Your task to perform on an android device: turn on bluetooth scan Image 0: 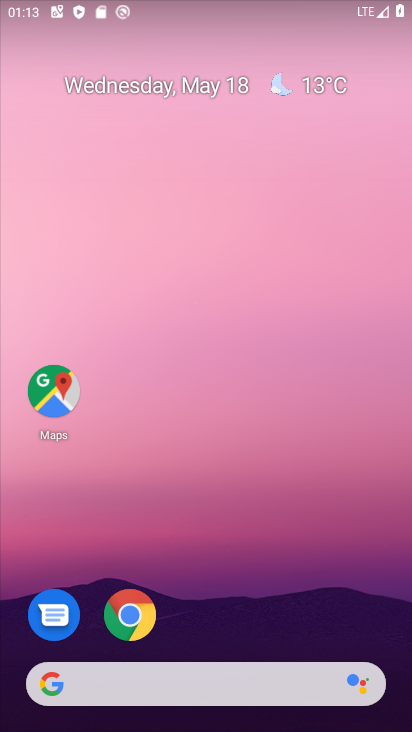
Step 0: press home button
Your task to perform on an android device: turn on bluetooth scan Image 1: 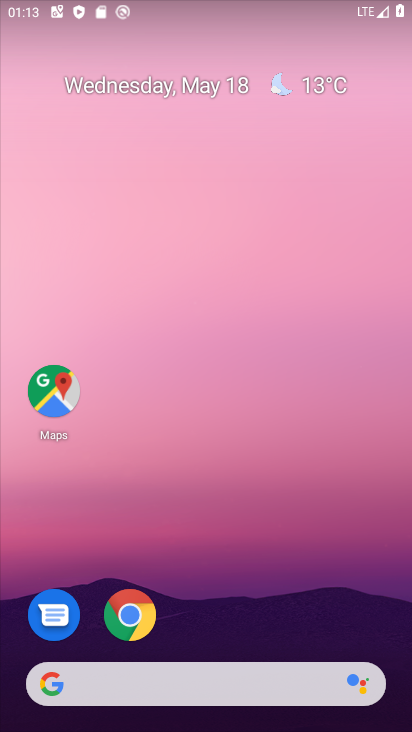
Step 1: drag from (170, 675) to (256, 104)
Your task to perform on an android device: turn on bluetooth scan Image 2: 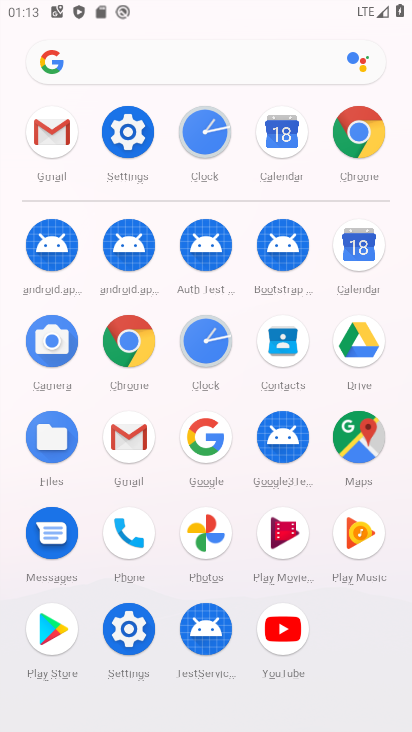
Step 2: click (135, 141)
Your task to perform on an android device: turn on bluetooth scan Image 3: 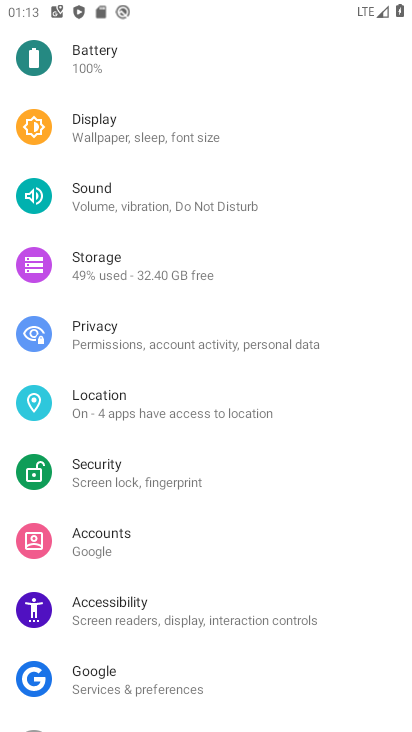
Step 3: click (132, 404)
Your task to perform on an android device: turn on bluetooth scan Image 4: 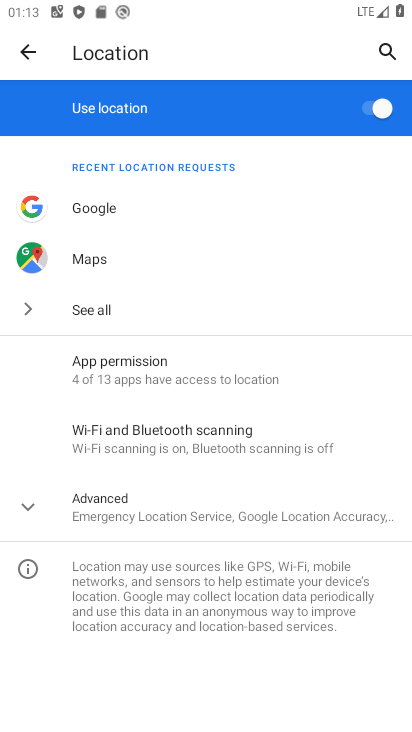
Step 4: click (195, 431)
Your task to perform on an android device: turn on bluetooth scan Image 5: 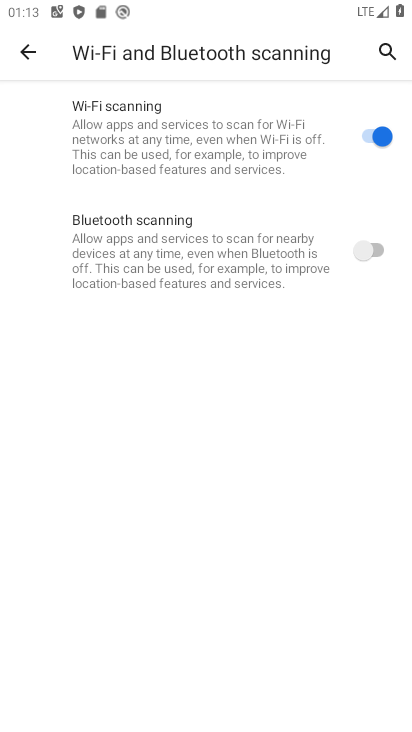
Step 5: click (374, 247)
Your task to perform on an android device: turn on bluetooth scan Image 6: 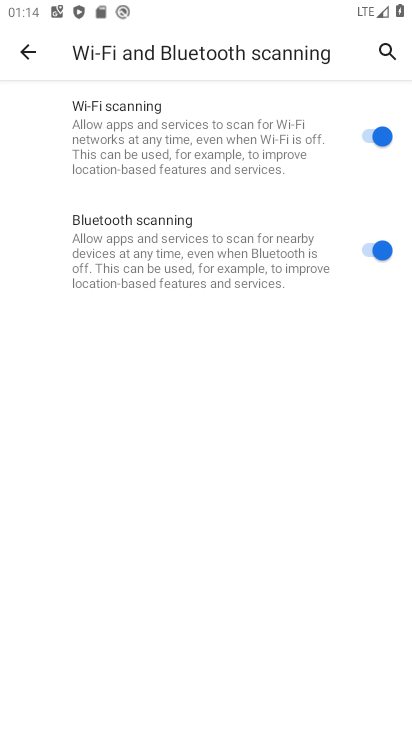
Step 6: task complete